Your task to perform on an android device: Go to Wikipedia Image 0: 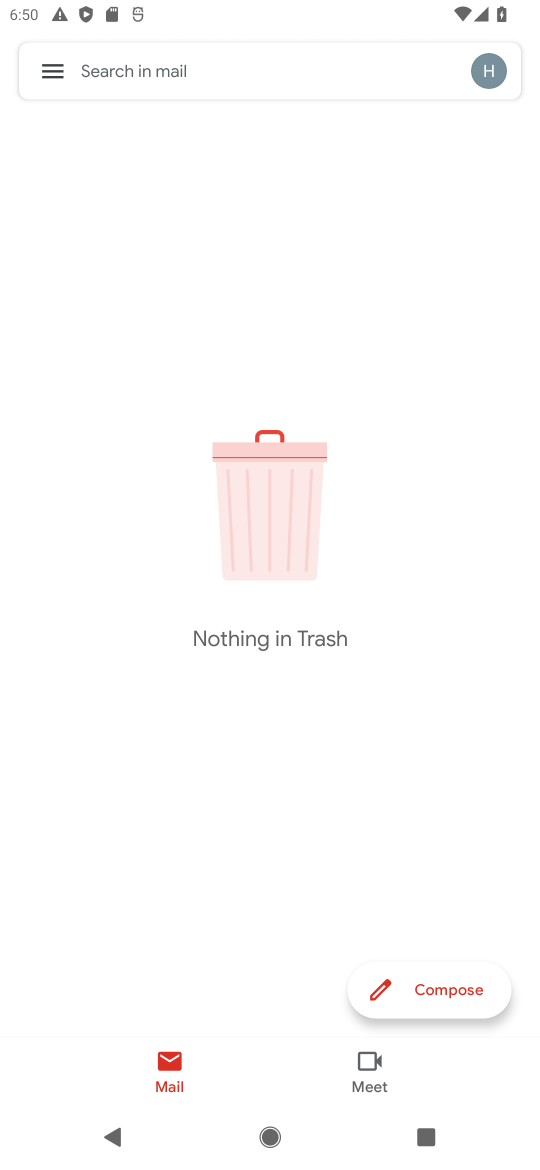
Step 0: press home button
Your task to perform on an android device: Go to Wikipedia Image 1: 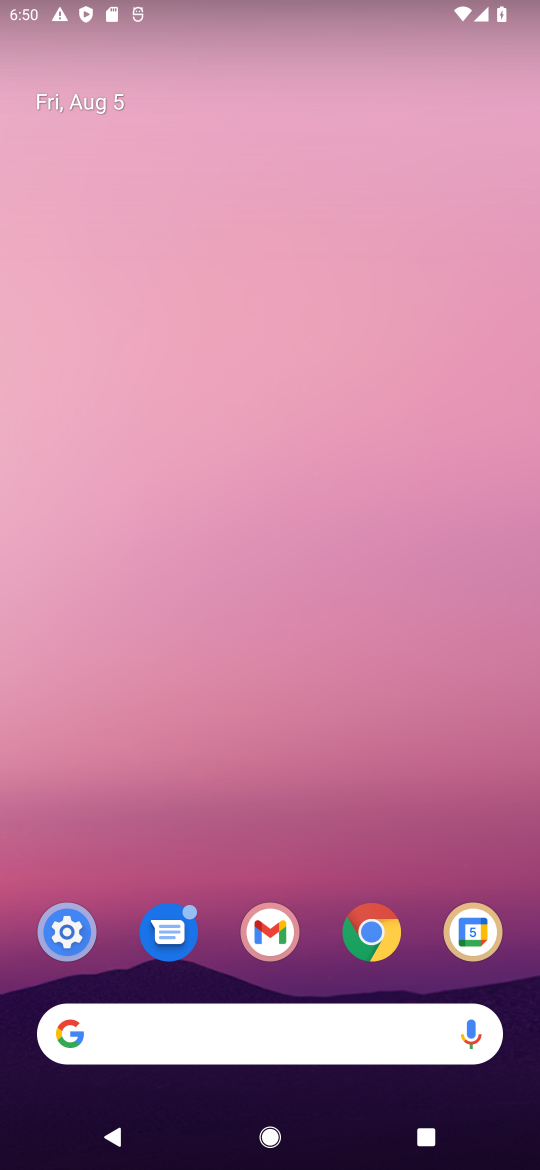
Step 1: click (370, 932)
Your task to perform on an android device: Go to Wikipedia Image 2: 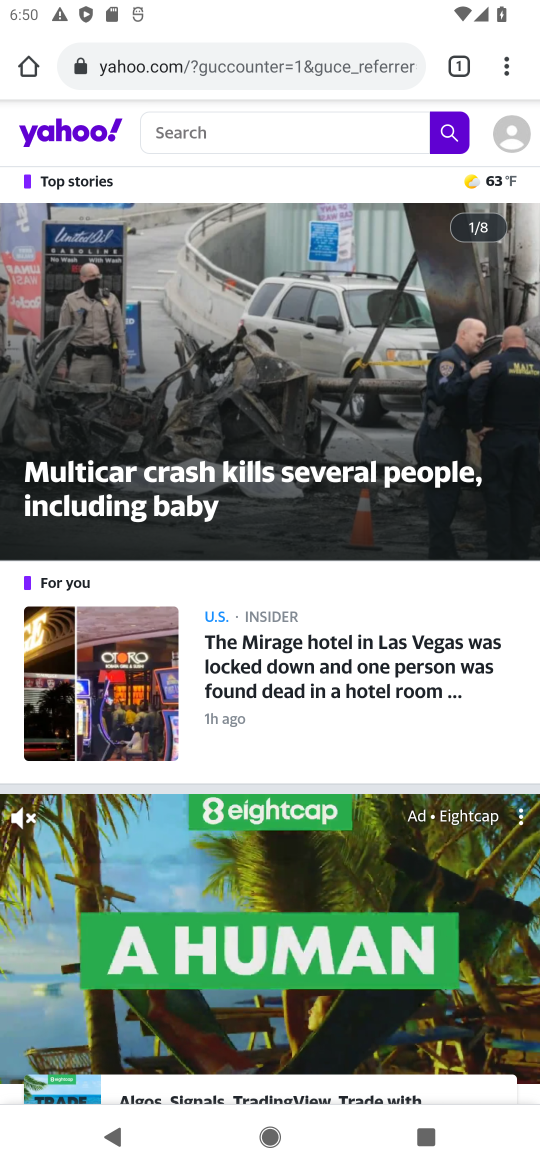
Step 2: click (392, 67)
Your task to perform on an android device: Go to Wikipedia Image 3: 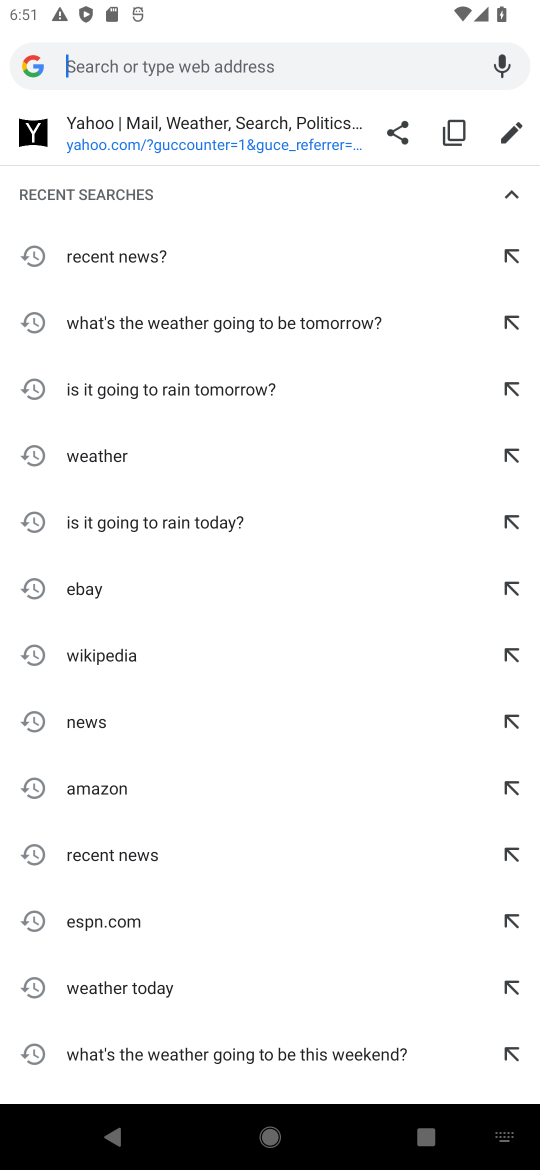
Step 3: type "Wikipedia"
Your task to perform on an android device: Go to Wikipedia Image 4: 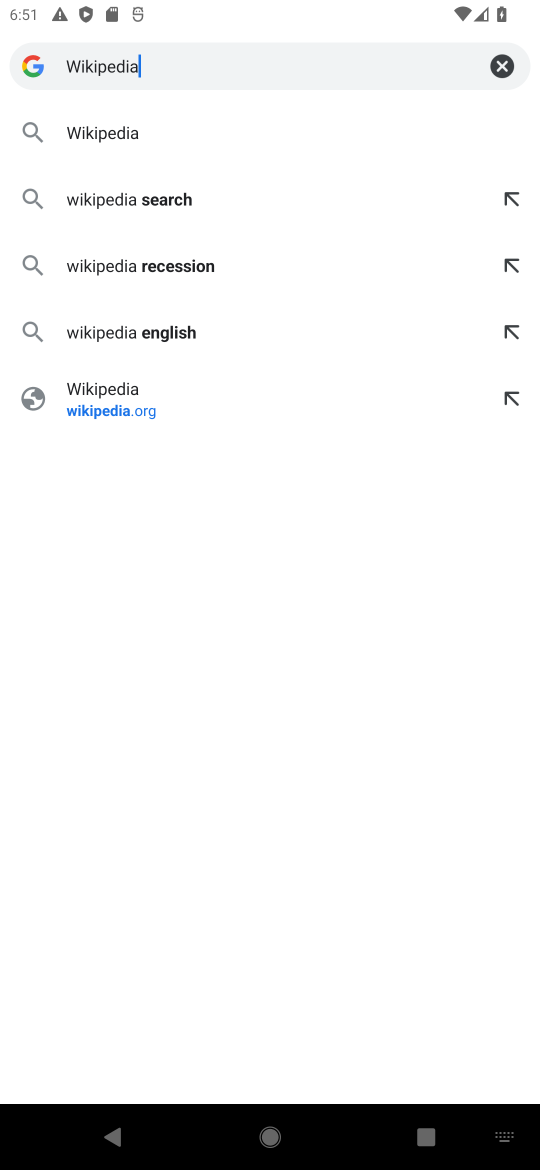
Step 4: click (137, 149)
Your task to perform on an android device: Go to Wikipedia Image 5: 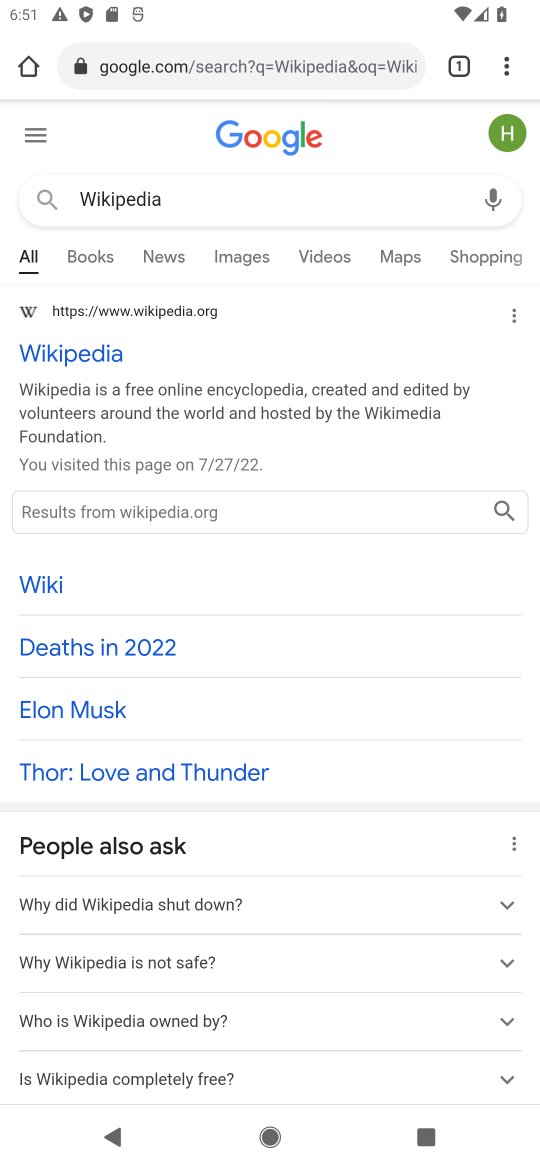
Step 5: click (103, 330)
Your task to perform on an android device: Go to Wikipedia Image 6: 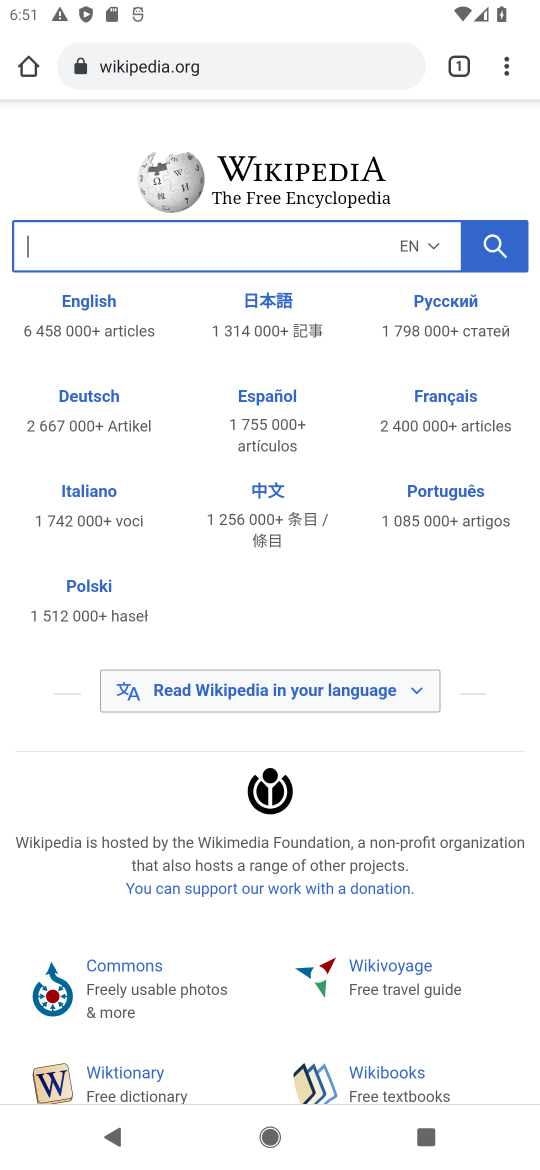
Step 6: task complete